Your task to perform on an android device: find photos in the google photos app Image 0: 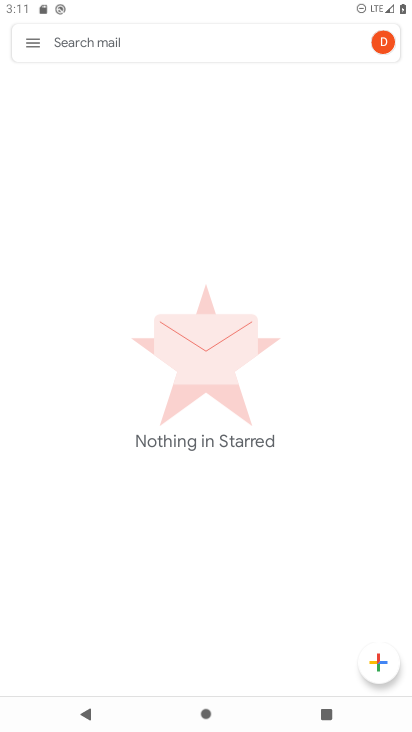
Step 0: press home button
Your task to perform on an android device: find photos in the google photos app Image 1: 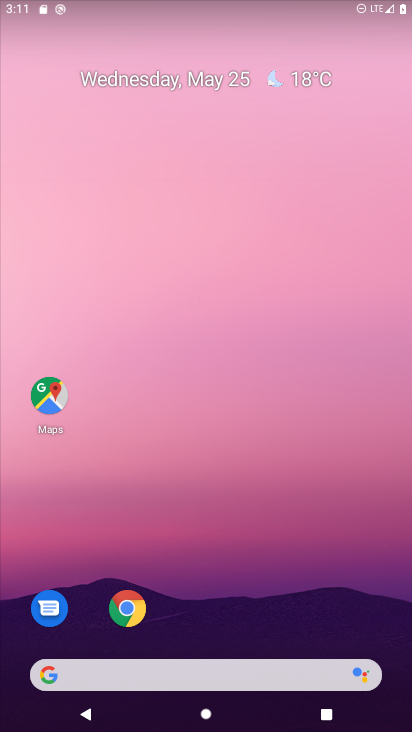
Step 1: drag from (387, 617) to (303, 150)
Your task to perform on an android device: find photos in the google photos app Image 2: 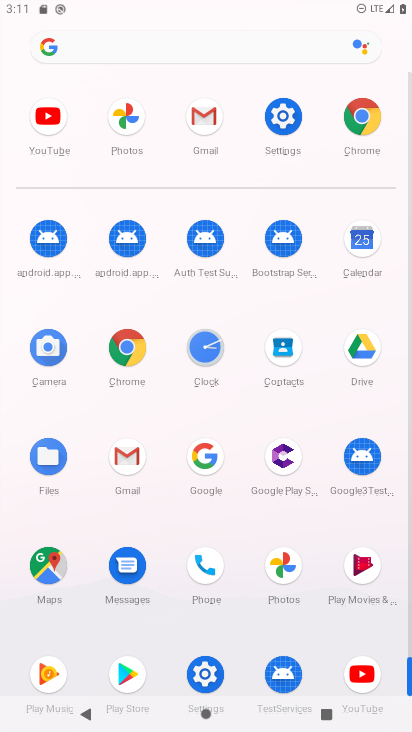
Step 2: click (285, 566)
Your task to perform on an android device: find photos in the google photos app Image 3: 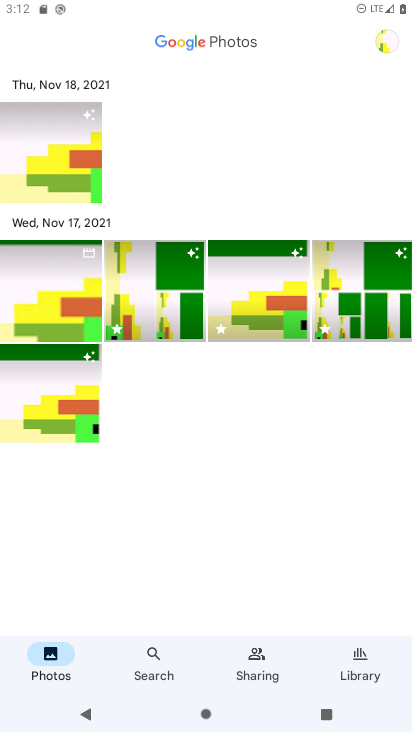
Step 3: task complete